Your task to perform on an android device: turn off javascript in the chrome app Image 0: 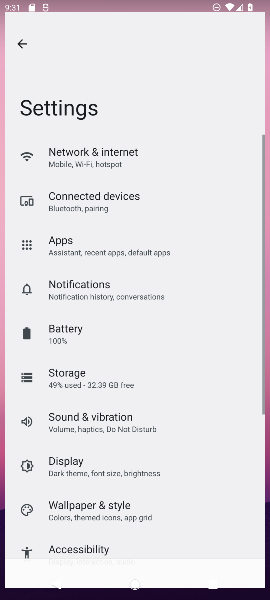
Step 0: drag from (94, 512) to (160, 189)
Your task to perform on an android device: turn off javascript in the chrome app Image 1: 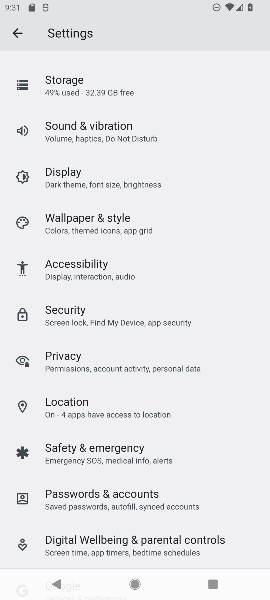
Step 1: drag from (143, 511) to (224, 84)
Your task to perform on an android device: turn off javascript in the chrome app Image 2: 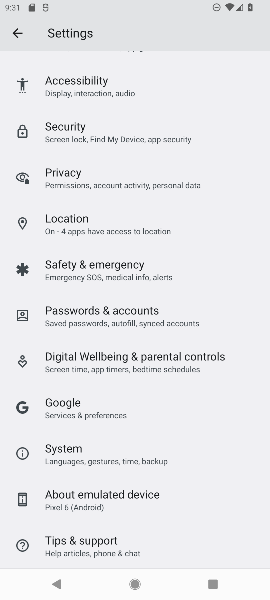
Step 2: drag from (177, 111) to (149, 598)
Your task to perform on an android device: turn off javascript in the chrome app Image 3: 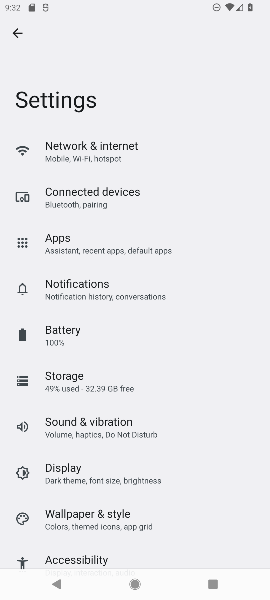
Step 3: drag from (127, 476) to (156, 403)
Your task to perform on an android device: turn off javascript in the chrome app Image 4: 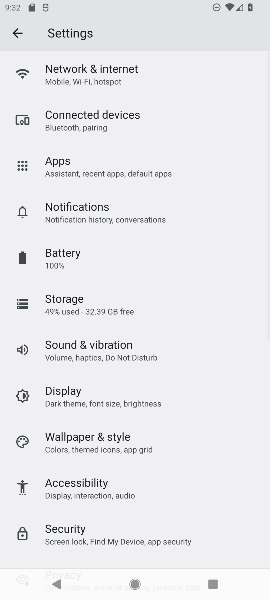
Step 4: press home button
Your task to perform on an android device: turn off javascript in the chrome app Image 5: 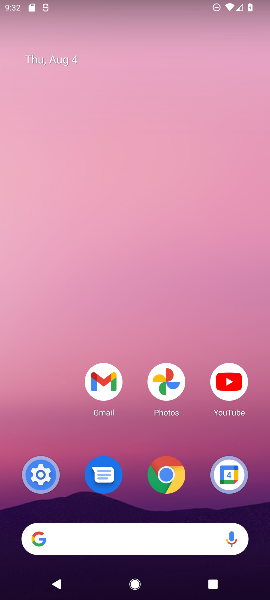
Step 5: drag from (143, 525) to (193, 213)
Your task to perform on an android device: turn off javascript in the chrome app Image 6: 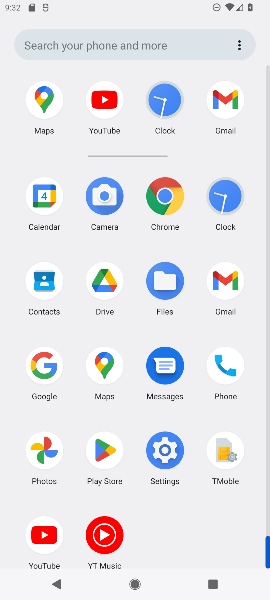
Step 6: click (161, 192)
Your task to perform on an android device: turn off javascript in the chrome app Image 7: 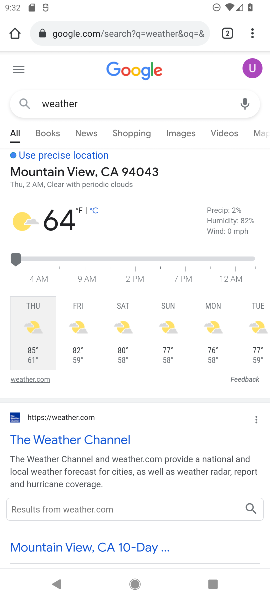
Step 7: drag from (251, 32) to (171, 454)
Your task to perform on an android device: turn off javascript in the chrome app Image 8: 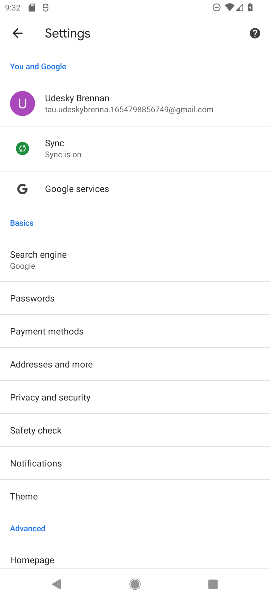
Step 8: drag from (104, 368) to (163, 162)
Your task to perform on an android device: turn off javascript in the chrome app Image 9: 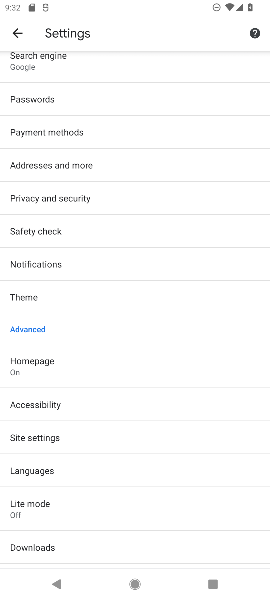
Step 9: click (68, 437)
Your task to perform on an android device: turn off javascript in the chrome app Image 10: 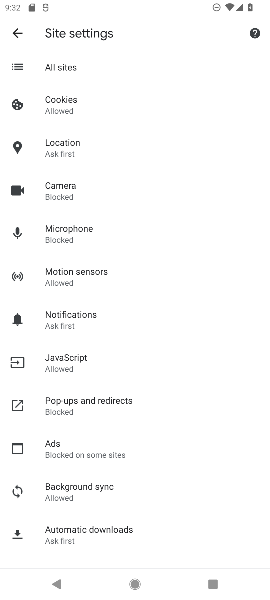
Step 10: click (75, 358)
Your task to perform on an android device: turn off javascript in the chrome app Image 11: 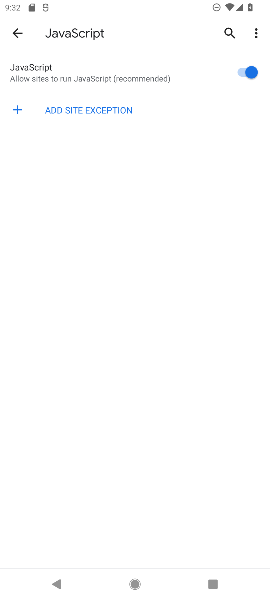
Step 11: click (250, 68)
Your task to perform on an android device: turn off javascript in the chrome app Image 12: 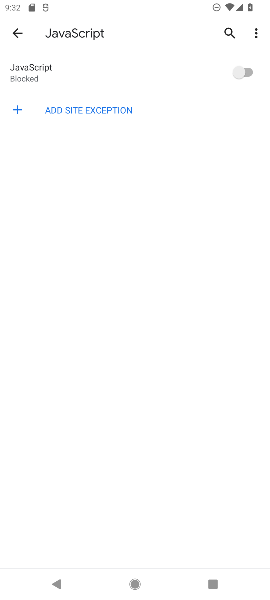
Step 12: task complete